Your task to perform on an android device: Open Chrome and go to the settings page Image 0: 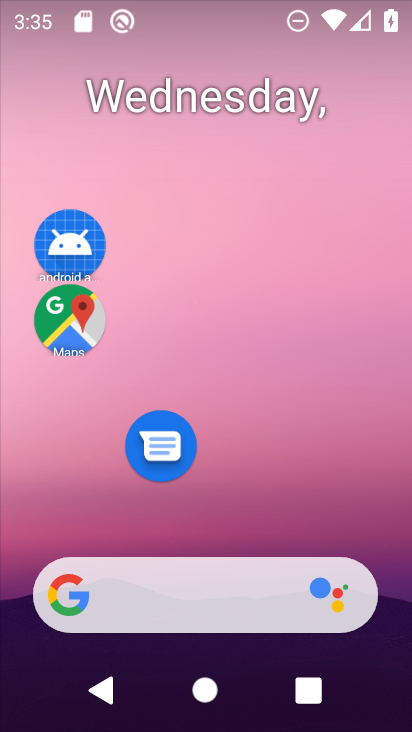
Step 0: drag from (264, 517) to (315, 289)
Your task to perform on an android device: Open Chrome and go to the settings page Image 1: 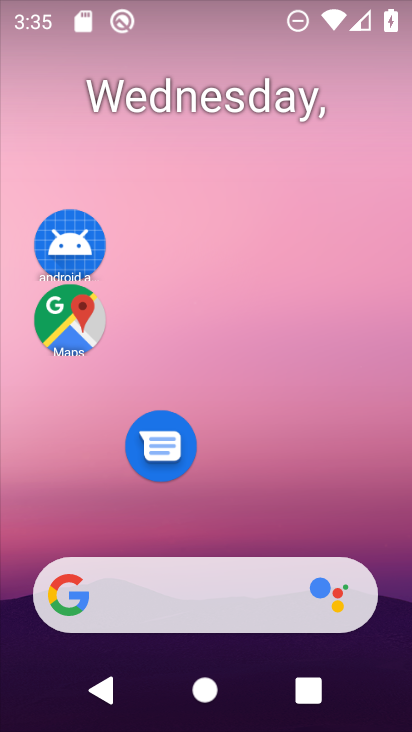
Step 1: drag from (284, 468) to (283, 14)
Your task to perform on an android device: Open Chrome and go to the settings page Image 2: 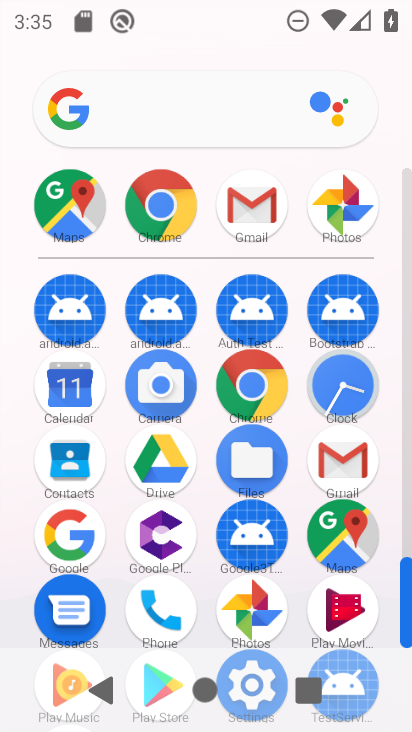
Step 2: click (152, 192)
Your task to perform on an android device: Open Chrome and go to the settings page Image 3: 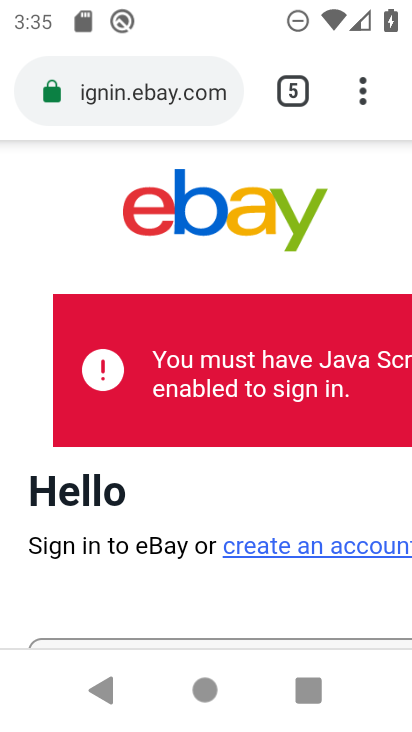
Step 3: click (361, 86)
Your task to perform on an android device: Open Chrome and go to the settings page Image 4: 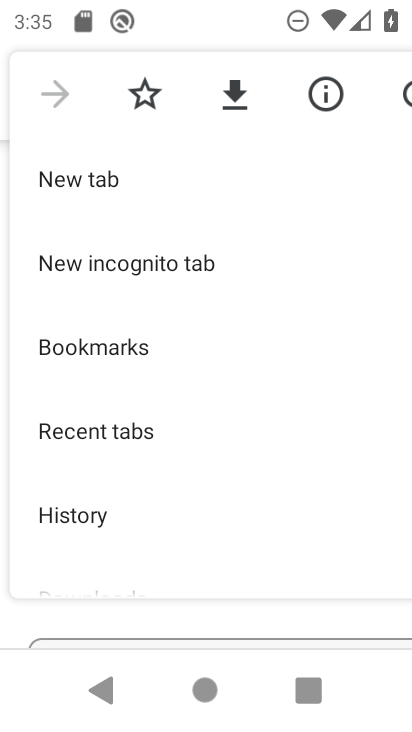
Step 4: drag from (186, 471) to (187, 111)
Your task to perform on an android device: Open Chrome and go to the settings page Image 5: 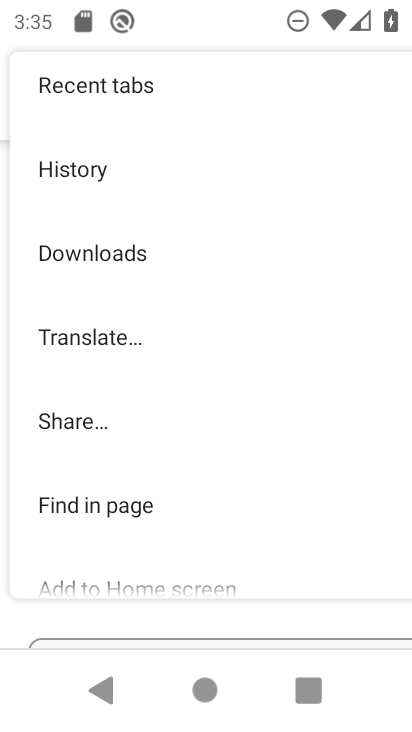
Step 5: drag from (115, 476) to (166, 242)
Your task to perform on an android device: Open Chrome and go to the settings page Image 6: 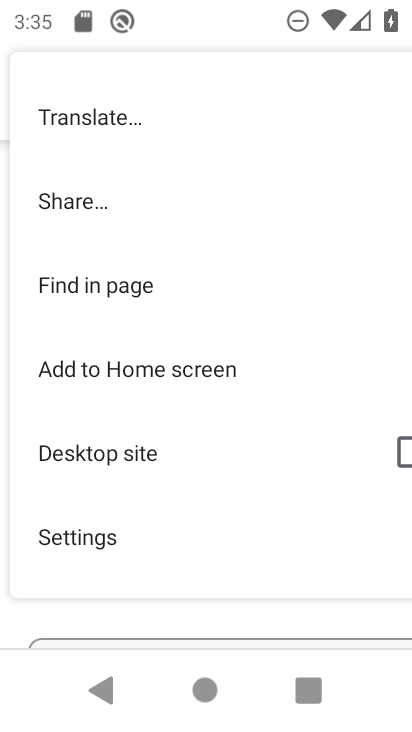
Step 6: drag from (120, 515) to (170, 231)
Your task to perform on an android device: Open Chrome and go to the settings page Image 7: 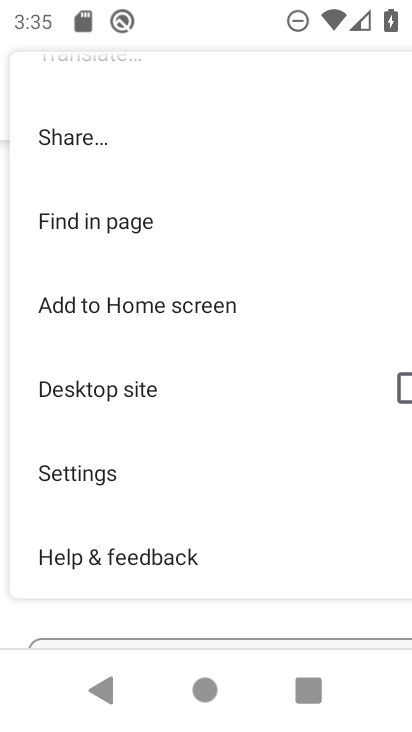
Step 7: click (152, 466)
Your task to perform on an android device: Open Chrome and go to the settings page Image 8: 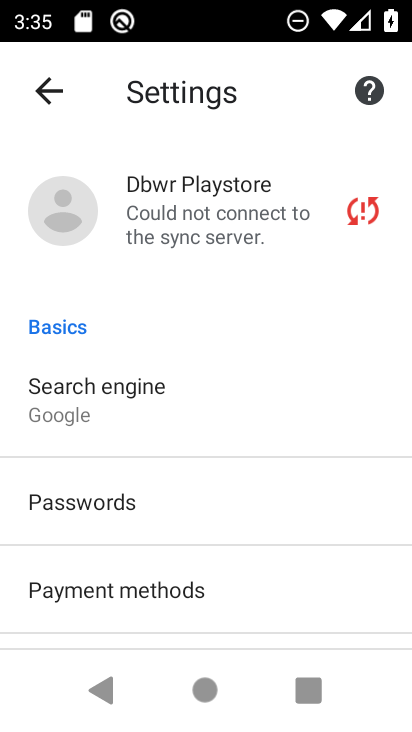
Step 8: task complete